Your task to perform on an android device: move a message to another label in the gmail app Image 0: 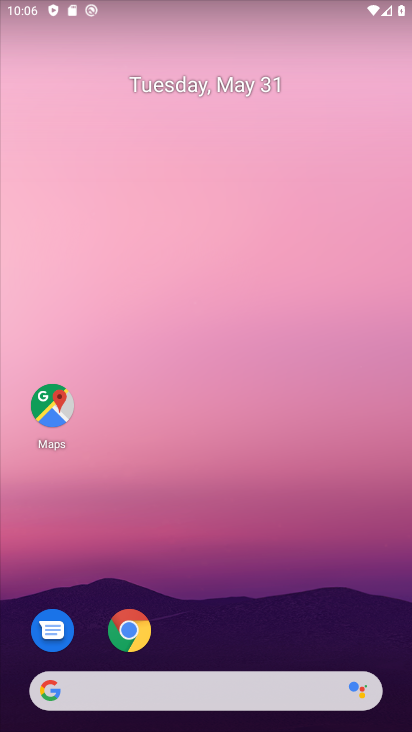
Step 0: drag from (259, 598) to (261, 76)
Your task to perform on an android device: move a message to another label in the gmail app Image 1: 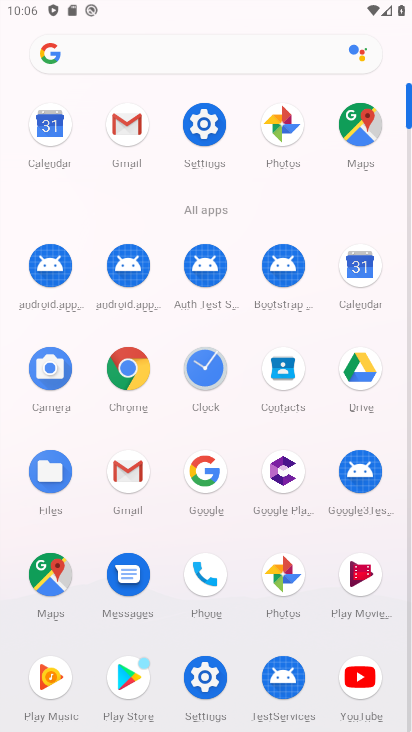
Step 1: click (123, 130)
Your task to perform on an android device: move a message to another label in the gmail app Image 2: 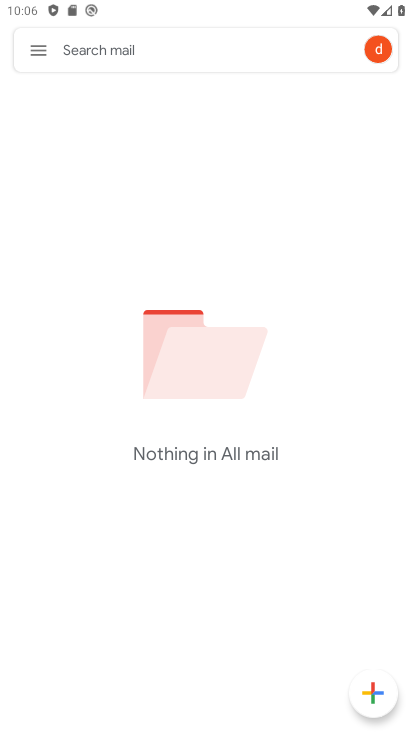
Step 2: task complete